Your task to perform on an android device: Open the calendar app, open the side menu, and click the "Day" option Image 0: 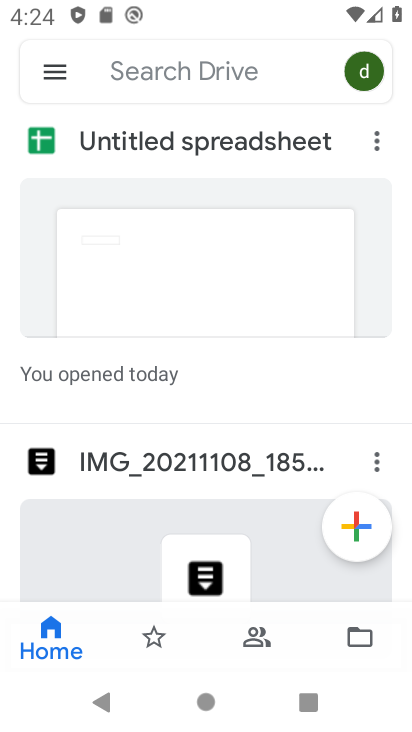
Step 0: press home button
Your task to perform on an android device: Open the calendar app, open the side menu, and click the "Day" option Image 1: 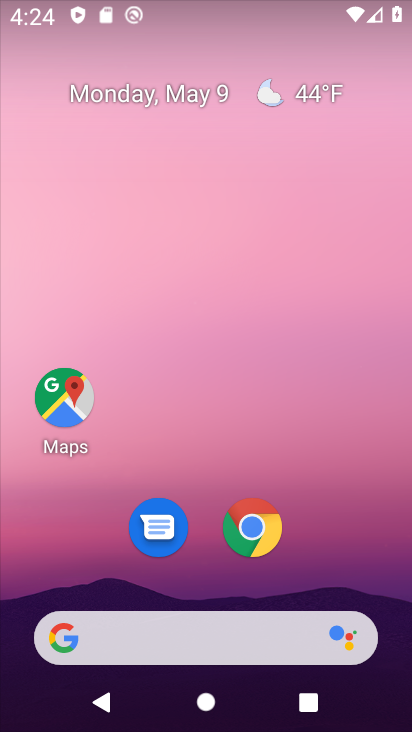
Step 1: click (193, 96)
Your task to perform on an android device: Open the calendar app, open the side menu, and click the "Day" option Image 2: 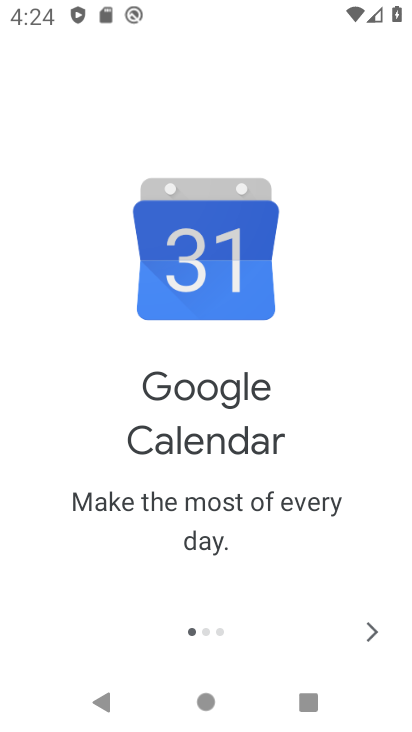
Step 2: click (356, 627)
Your task to perform on an android device: Open the calendar app, open the side menu, and click the "Day" option Image 3: 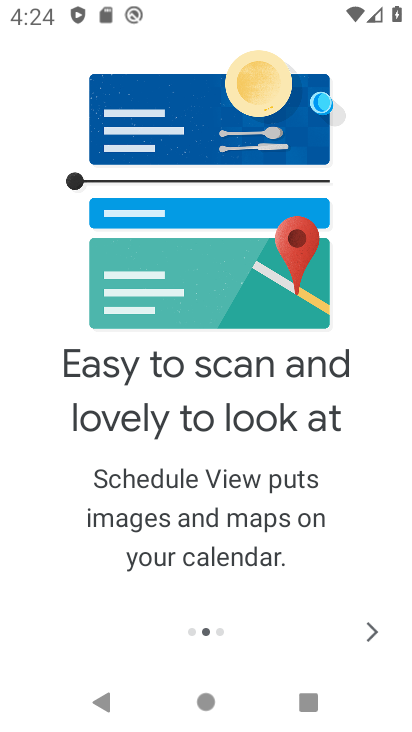
Step 3: click (356, 627)
Your task to perform on an android device: Open the calendar app, open the side menu, and click the "Day" option Image 4: 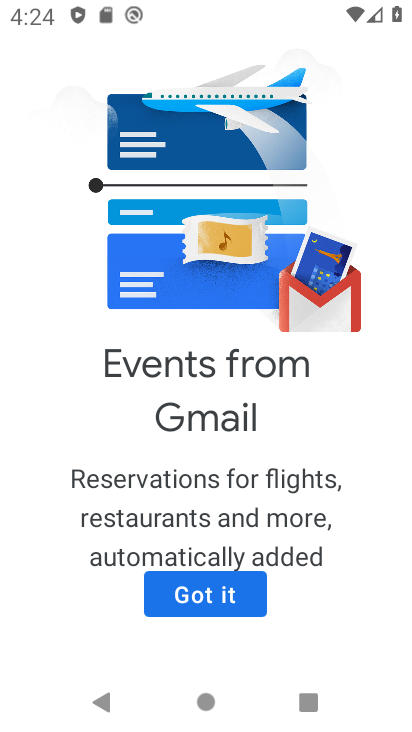
Step 4: click (356, 627)
Your task to perform on an android device: Open the calendar app, open the side menu, and click the "Day" option Image 5: 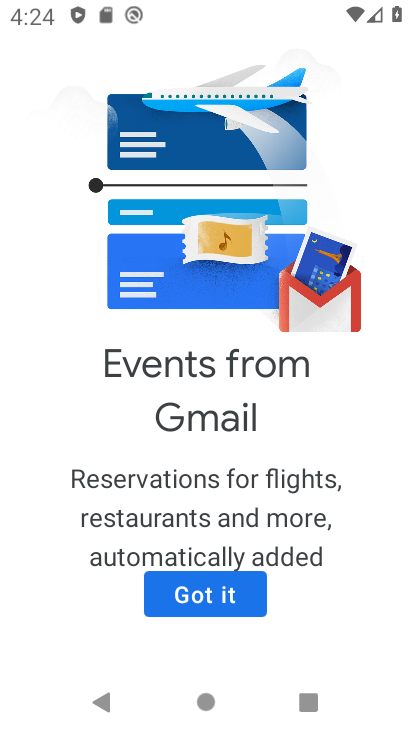
Step 5: click (236, 607)
Your task to perform on an android device: Open the calendar app, open the side menu, and click the "Day" option Image 6: 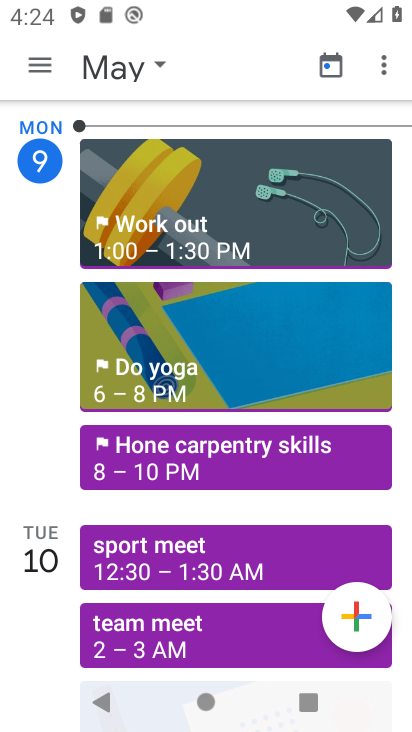
Step 6: click (50, 63)
Your task to perform on an android device: Open the calendar app, open the side menu, and click the "Day" option Image 7: 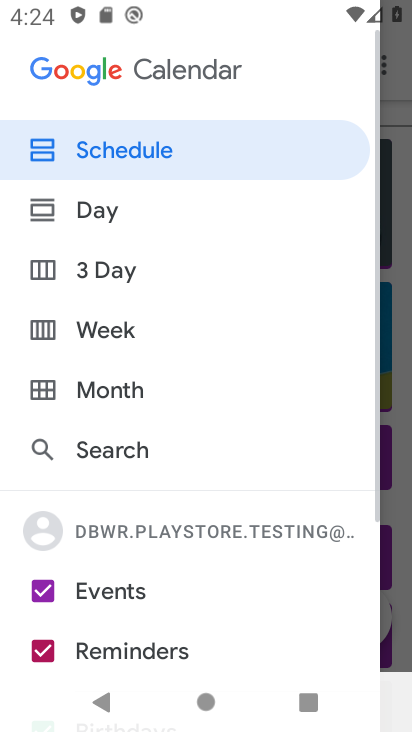
Step 7: click (85, 212)
Your task to perform on an android device: Open the calendar app, open the side menu, and click the "Day" option Image 8: 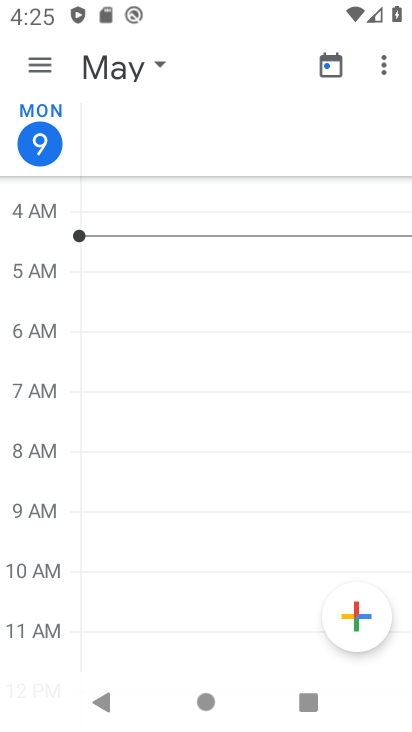
Step 8: task complete